Your task to perform on an android device: clear history in the chrome app Image 0: 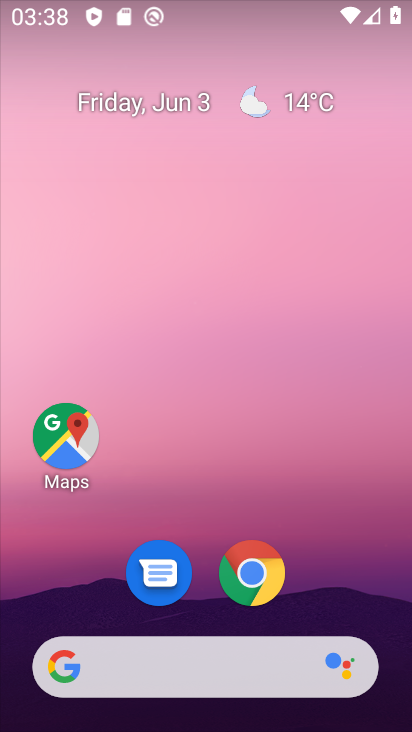
Step 0: drag from (223, 655) to (284, 2)
Your task to perform on an android device: clear history in the chrome app Image 1: 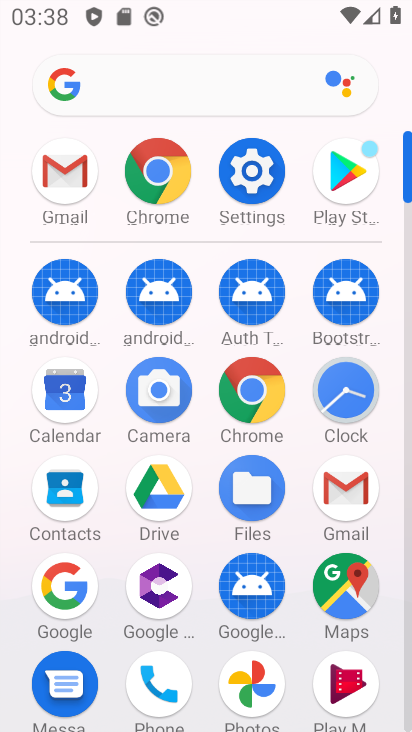
Step 1: click (265, 394)
Your task to perform on an android device: clear history in the chrome app Image 2: 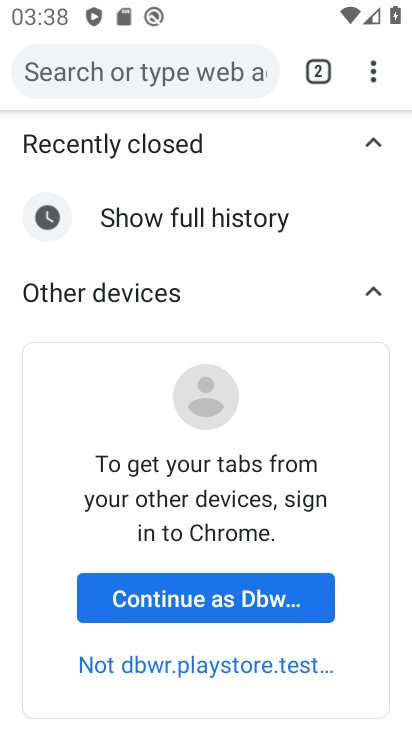
Step 2: drag from (372, 79) to (164, 404)
Your task to perform on an android device: clear history in the chrome app Image 3: 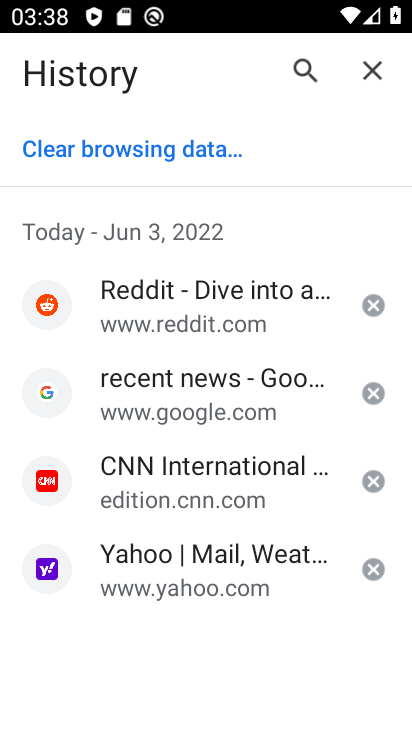
Step 3: click (202, 157)
Your task to perform on an android device: clear history in the chrome app Image 4: 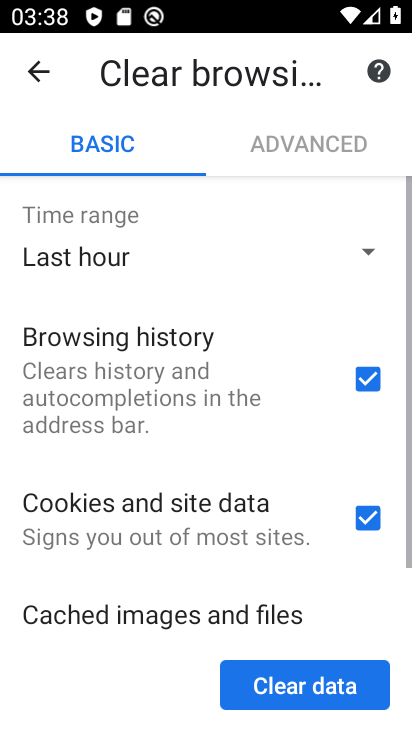
Step 4: click (353, 704)
Your task to perform on an android device: clear history in the chrome app Image 5: 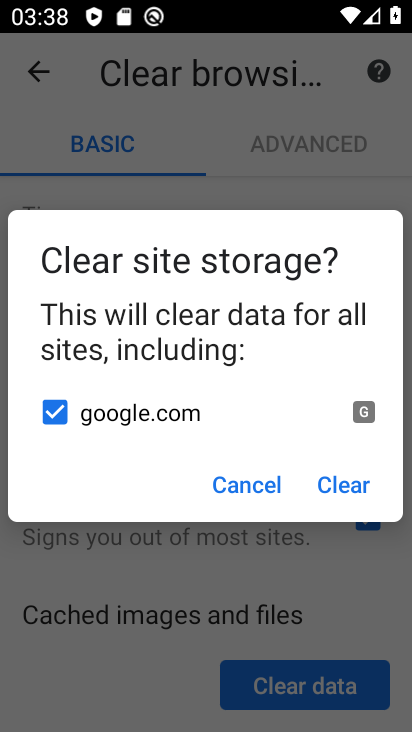
Step 5: click (345, 476)
Your task to perform on an android device: clear history in the chrome app Image 6: 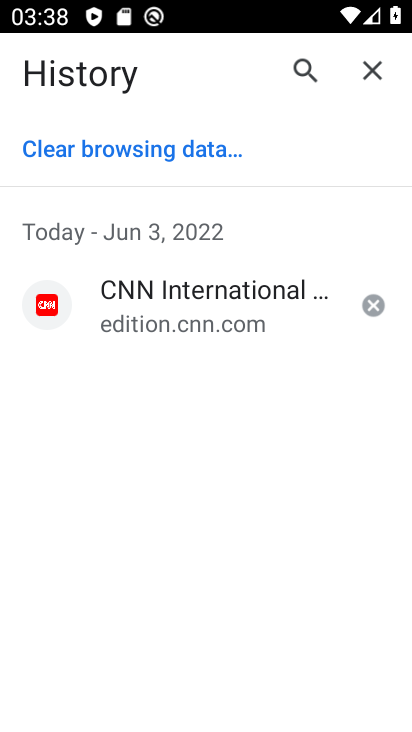
Step 6: click (370, 302)
Your task to perform on an android device: clear history in the chrome app Image 7: 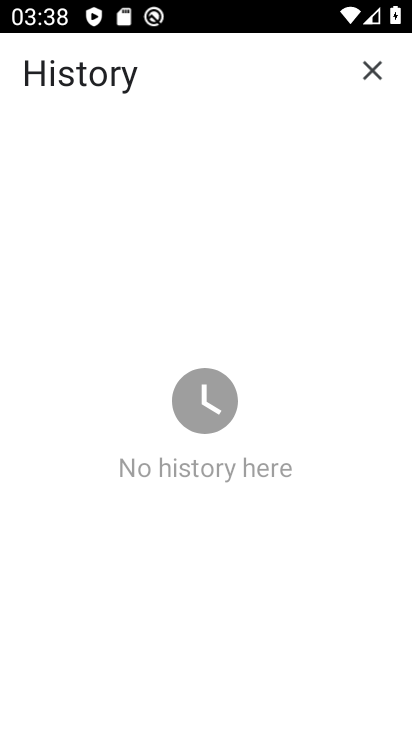
Step 7: task complete